Your task to perform on an android device: toggle wifi Image 0: 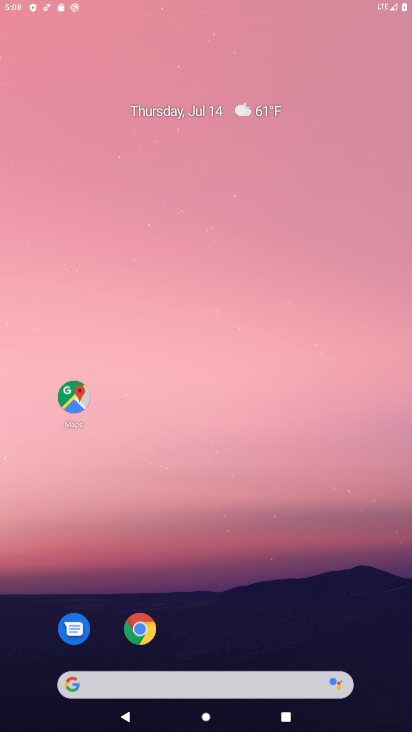
Step 0: click (237, 71)
Your task to perform on an android device: toggle wifi Image 1: 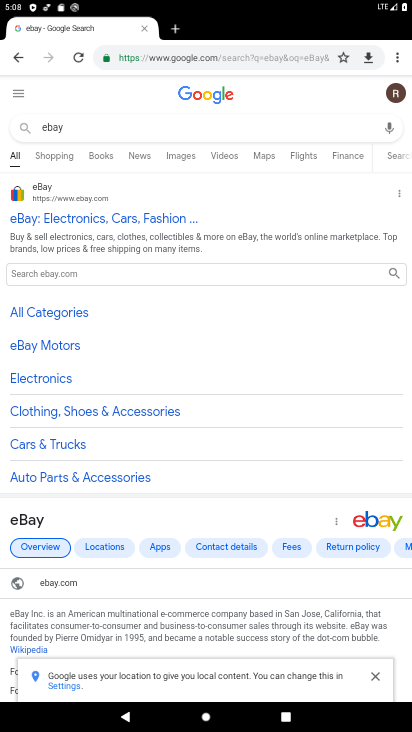
Step 1: drag from (324, 2) to (320, 580)
Your task to perform on an android device: toggle wifi Image 2: 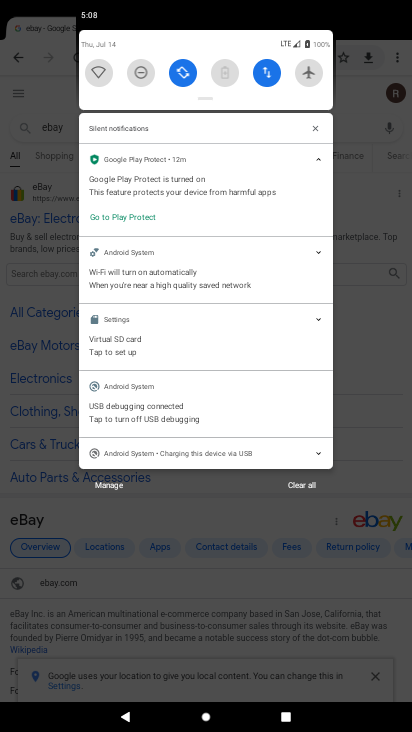
Step 2: click (98, 65)
Your task to perform on an android device: toggle wifi Image 3: 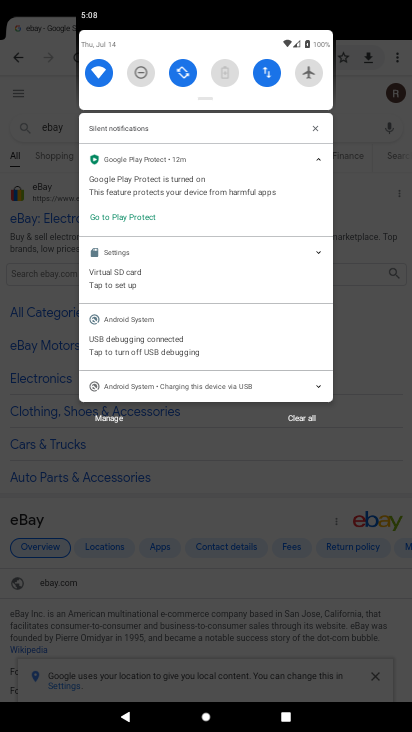
Step 3: task complete